Your task to perform on an android device: turn off airplane mode Image 0: 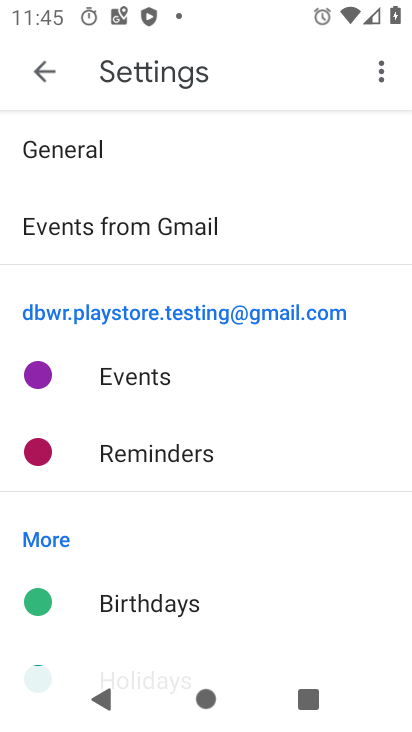
Step 0: press home button
Your task to perform on an android device: turn off airplane mode Image 1: 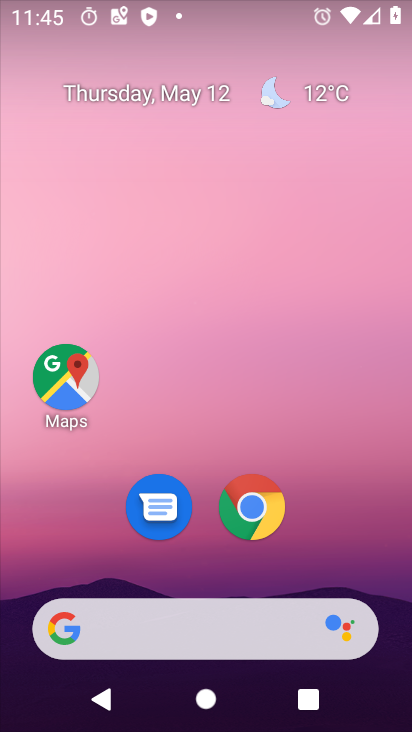
Step 1: drag from (177, 576) to (169, 12)
Your task to perform on an android device: turn off airplane mode Image 2: 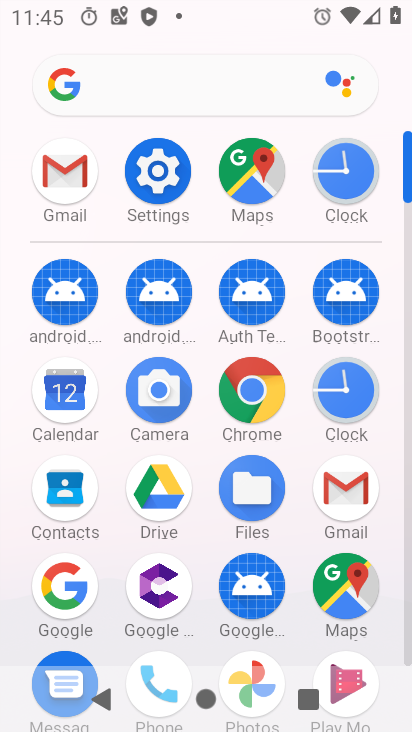
Step 2: click (161, 170)
Your task to perform on an android device: turn off airplane mode Image 3: 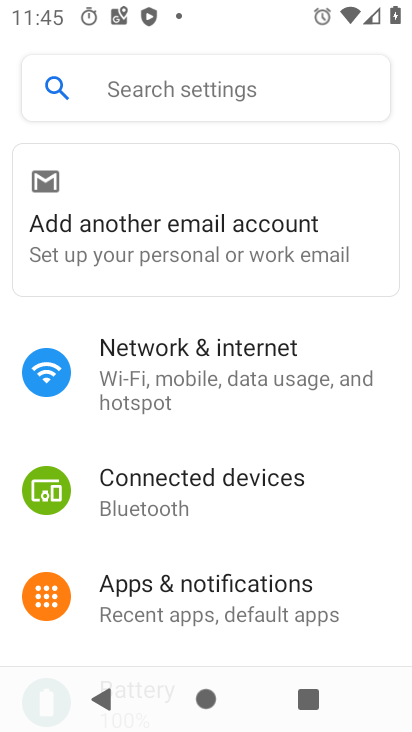
Step 3: click (176, 391)
Your task to perform on an android device: turn off airplane mode Image 4: 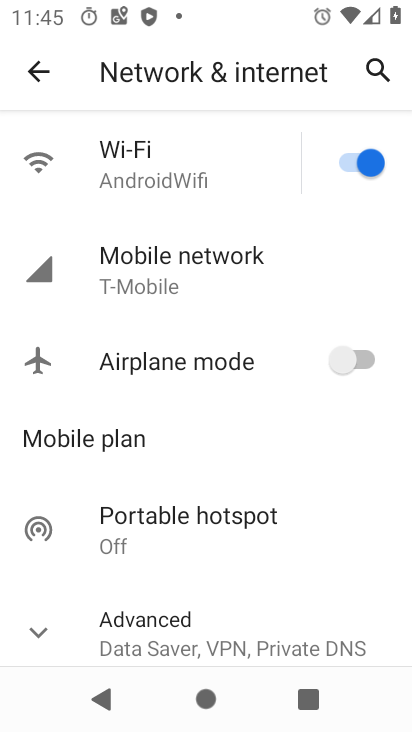
Step 4: task complete